Your task to perform on an android device: turn off smart reply in the gmail app Image 0: 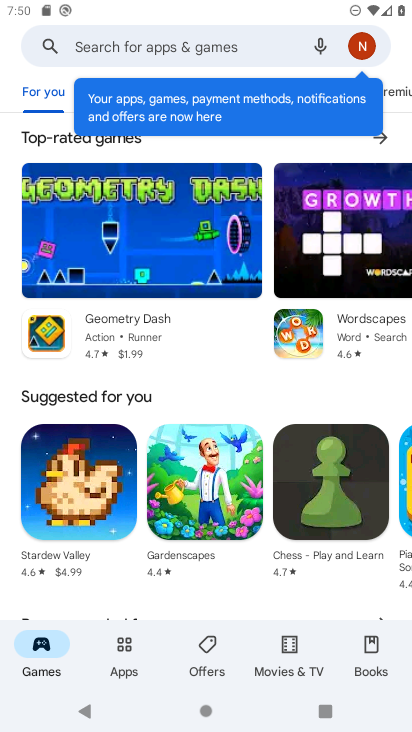
Step 0: press home button
Your task to perform on an android device: turn off smart reply in the gmail app Image 1: 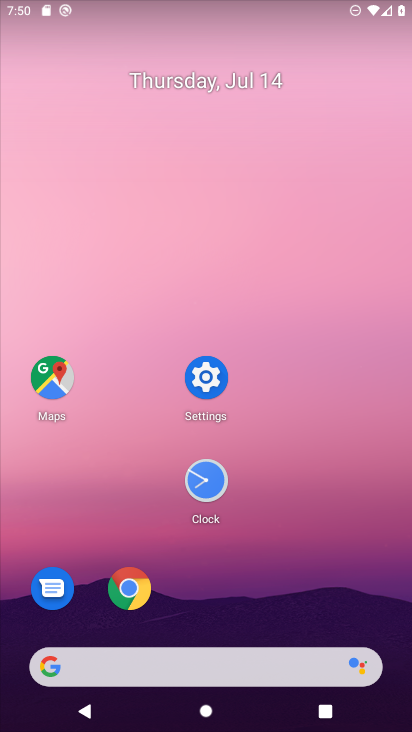
Step 1: drag from (379, 620) to (332, 120)
Your task to perform on an android device: turn off smart reply in the gmail app Image 2: 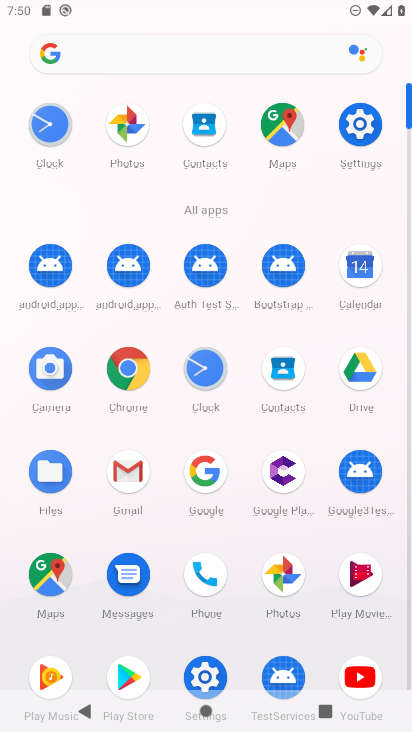
Step 2: click (125, 475)
Your task to perform on an android device: turn off smart reply in the gmail app Image 3: 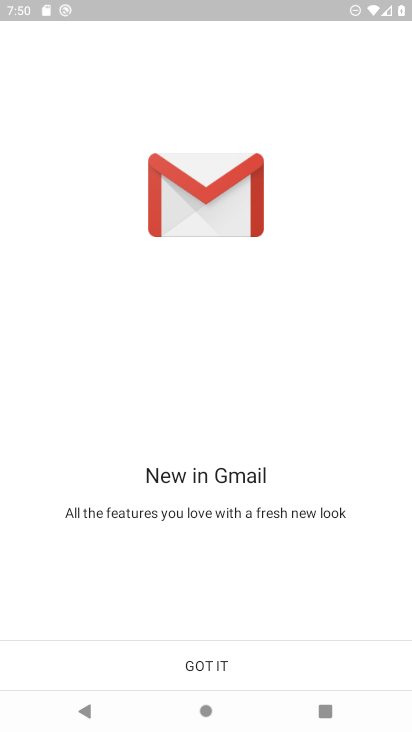
Step 3: click (214, 670)
Your task to perform on an android device: turn off smart reply in the gmail app Image 4: 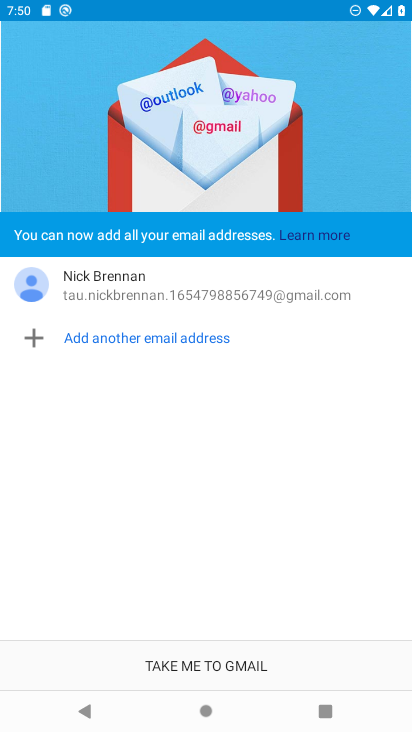
Step 4: click (209, 663)
Your task to perform on an android device: turn off smart reply in the gmail app Image 5: 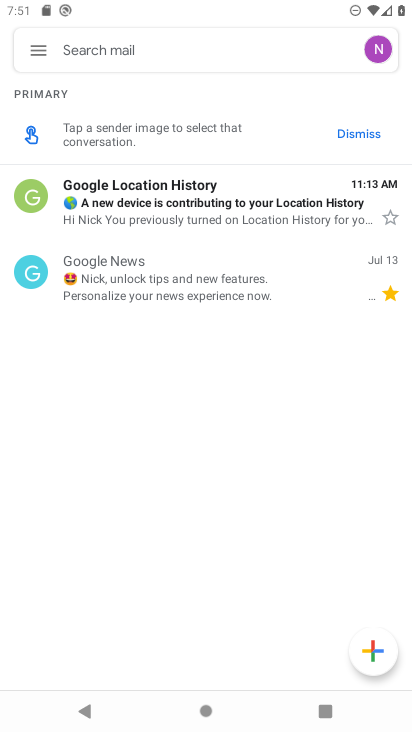
Step 5: click (31, 50)
Your task to perform on an android device: turn off smart reply in the gmail app Image 6: 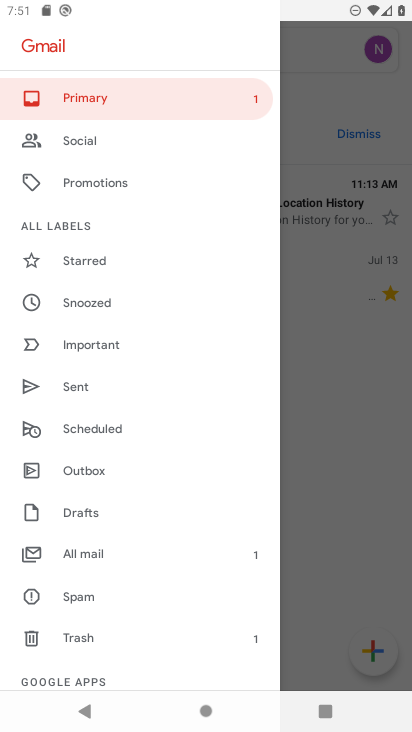
Step 6: drag from (174, 597) to (196, 287)
Your task to perform on an android device: turn off smart reply in the gmail app Image 7: 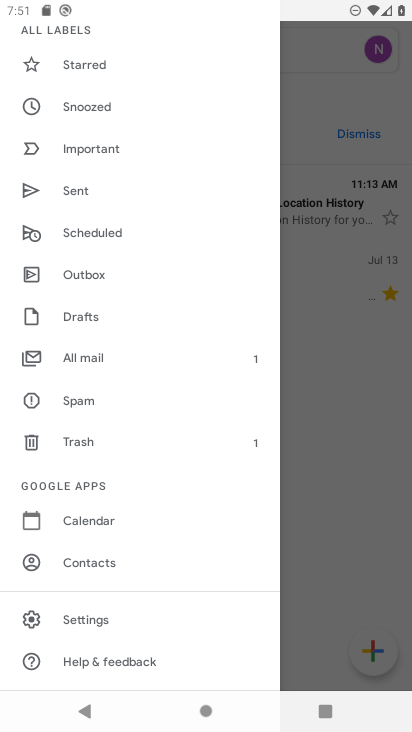
Step 7: click (93, 615)
Your task to perform on an android device: turn off smart reply in the gmail app Image 8: 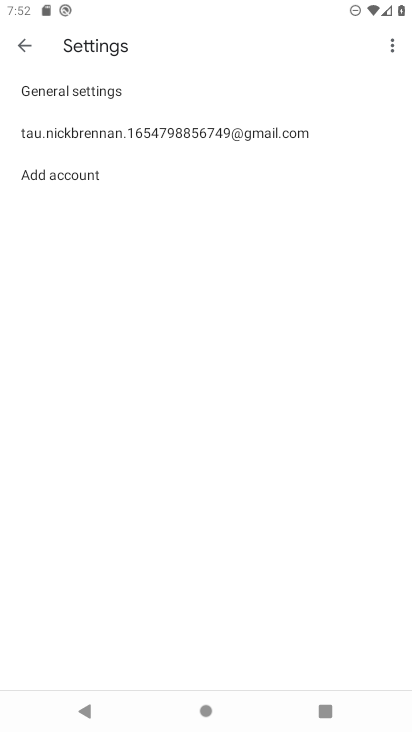
Step 8: click (69, 136)
Your task to perform on an android device: turn off smart reply in the gmail app Image 9: 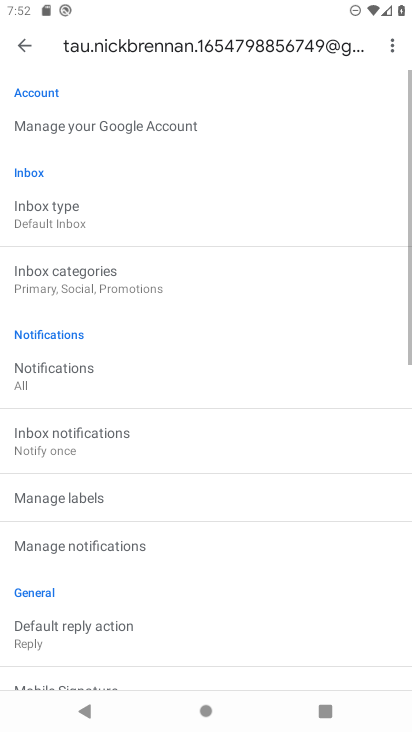
Step 9: drag from (241, 621) to (259, 250)
Your task to perform on an android device: turn off smart reply in the gmail app Image 10: 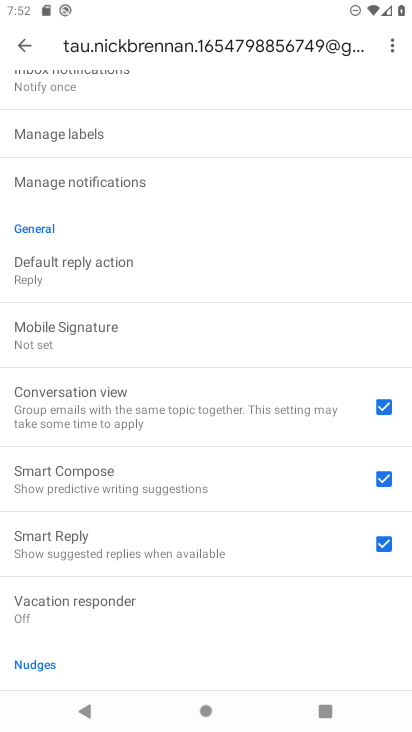
Step 10: click (355, 545)
Your task to perform on an android device: turn off smart reply in the gmail app Image 11: 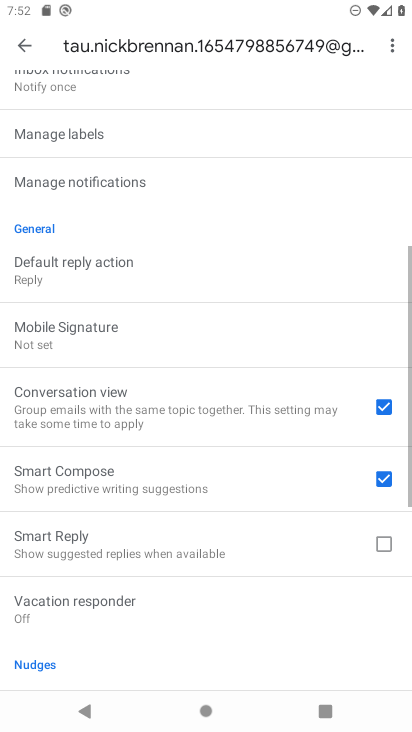
Step 11: task complete